Your task to perform on an android device: Go to Wikipedia Image 0: 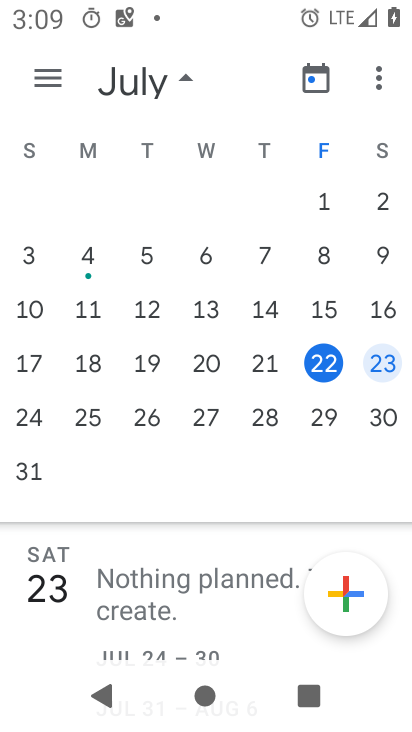
Step 0: press home button
Your task to perform on an android device: Go to Wikipedia Image 1: 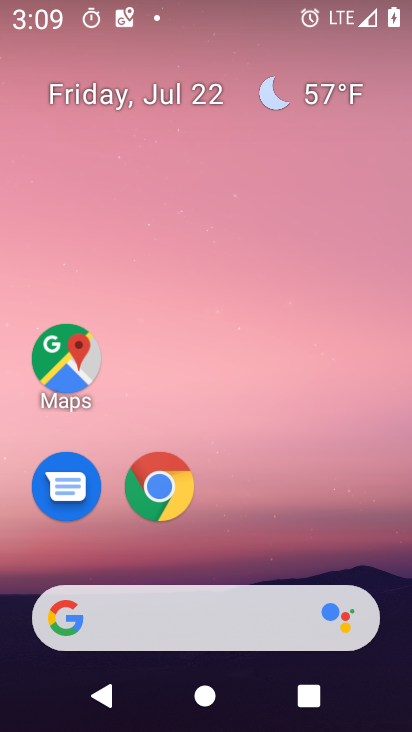
Step 1: drag from (373, 534) to (370, 129)
Your task to perform on an android device: Go to Wikipedia Image 2: 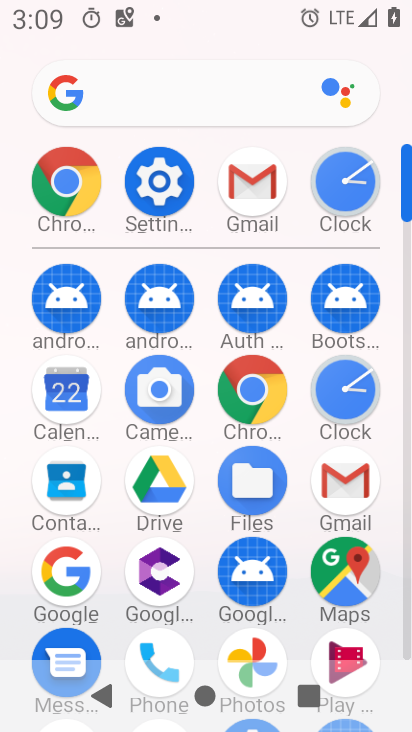
Step 2: click (257, 387)
Your task to perform on an android device: Go to Wikipedia Image 3: 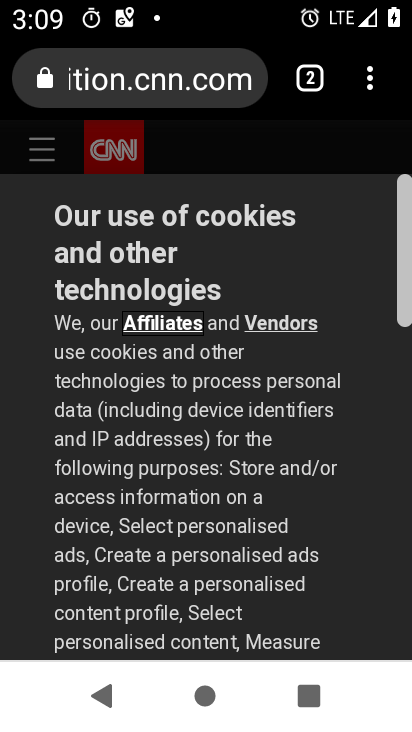
Step 3: click (195, 92)
Your task to perform on an android device: Go to Wikipedia Image 4: 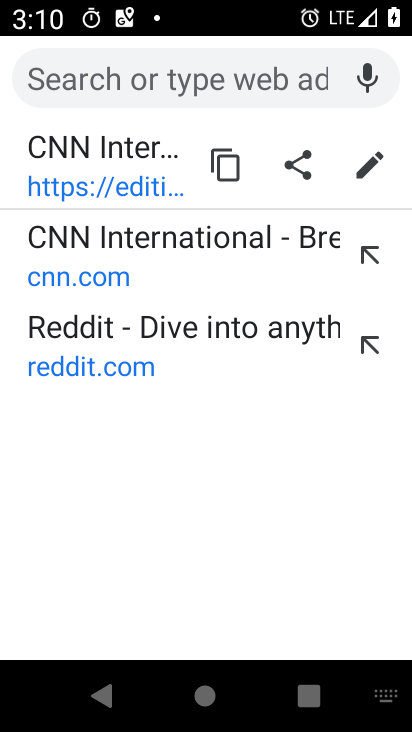
Step 4: type "wikipedia"
Your task to perform on an android device: Go to Wikipedia Image 5: 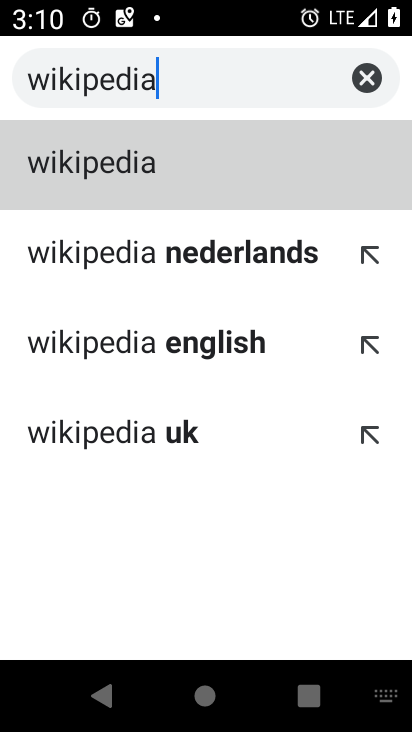
Step 5: click (317, 169)
Your task to perform on an android device: Go to Wikipedia Image 6: 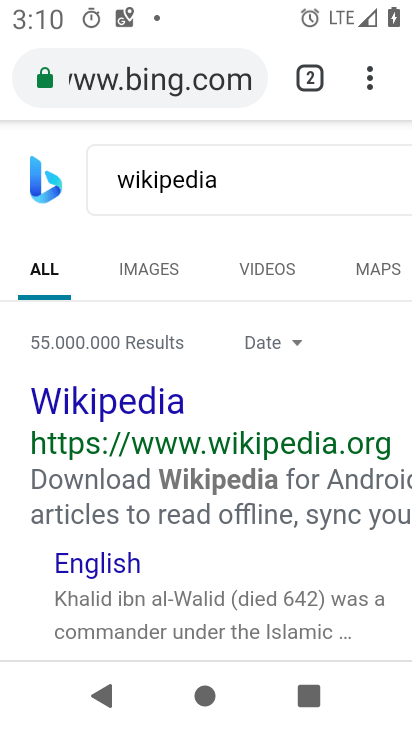
Step 6: task complete